Your task to perform on an android device: toggle translation in the chrome app Image 0: 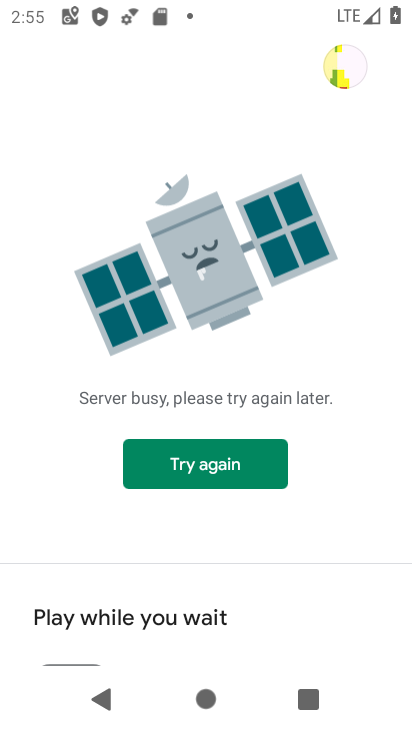
Step 0: press home button
Your task to perform on an android device: toggle translation in the chrome app Image 1: 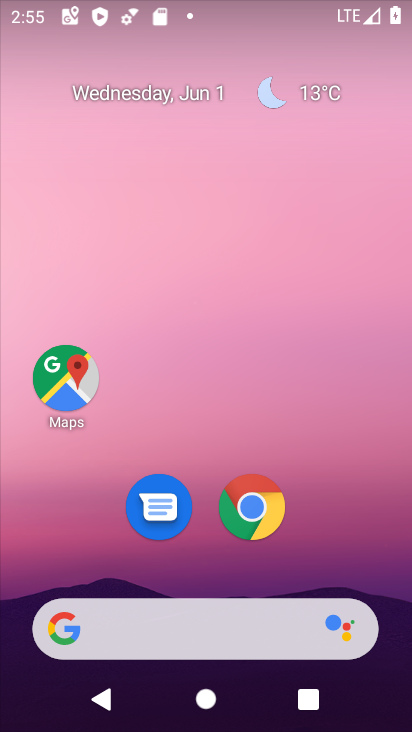
Step 1: click (273, 519)
Your task to perform on an android device: toggle translation in the chrome app Image 2: 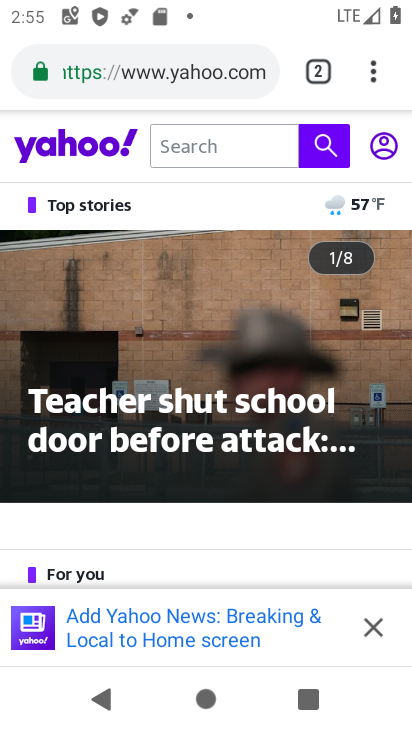
Step 2: click (375, 61)
Your task to perform on an android device: toggle translation in the chrome app Image 3: 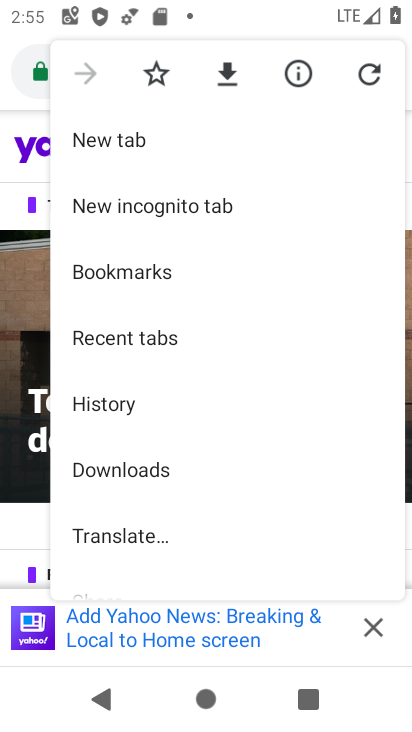
Step 3: drag from (199, 513) to (235, 95)
Your task to perform on an android device: toggle translation in the chrome app Image 4: 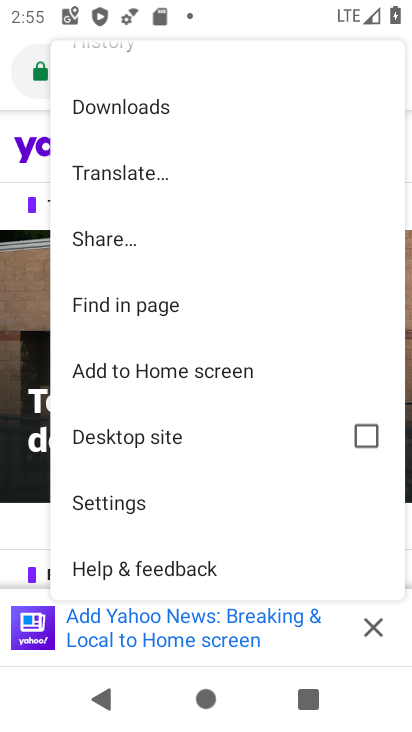
Step 4: click (124, 512)
Your task to perform on an android device: toggle translation in the chrome app Image 5: 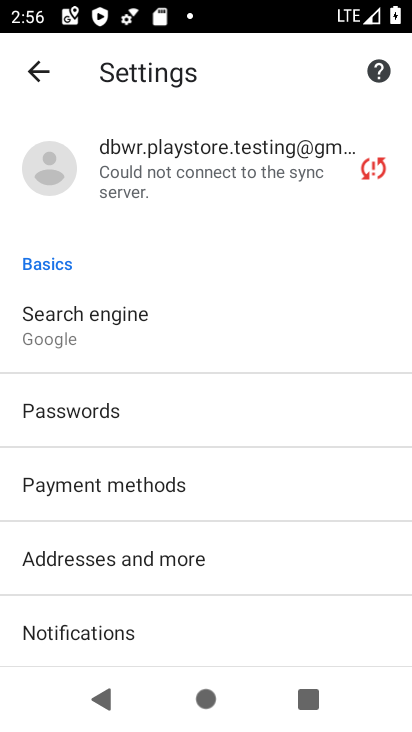
Step 5: drag from (178, 630) to (116, 190)
Your task to perform on an android device: toggle translation in the chrome app Image 6: 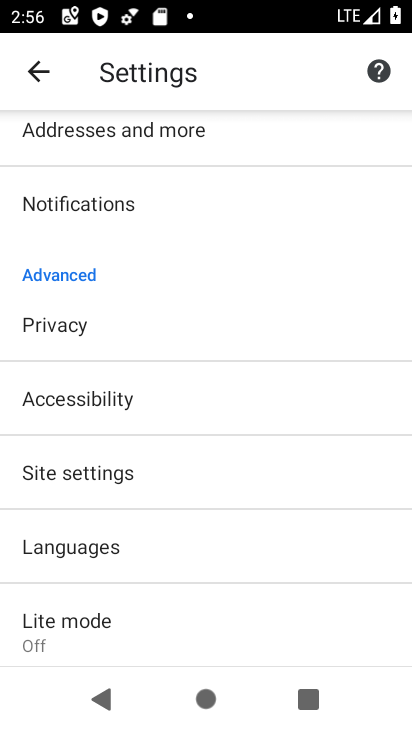
Step 6: click (59, 549)
Your task to perform on an android device: toggle translation in the chrome app Image 7: 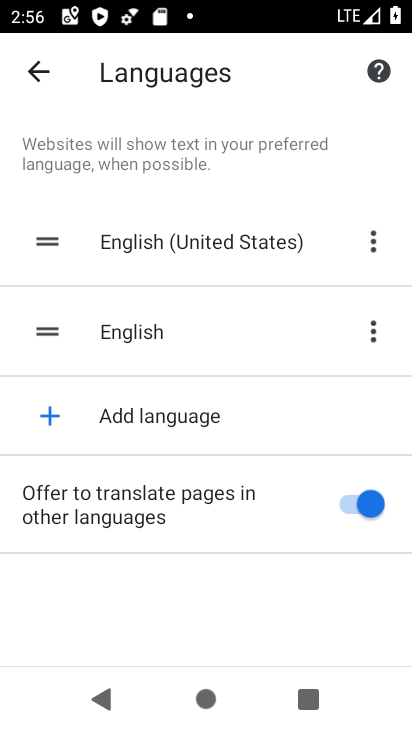
Step 7: click (361, 499)
Your task to perform on an android device: toggle translation in the chrome app Image 8: 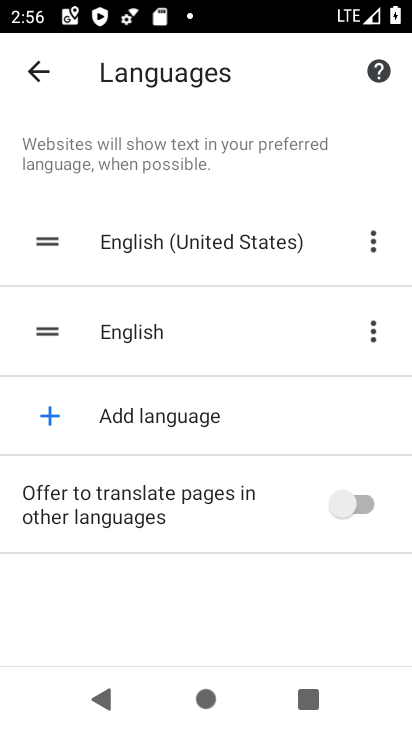
Step 8: task complete